Your task to perform on an android device: Go to Android settings Image 0: 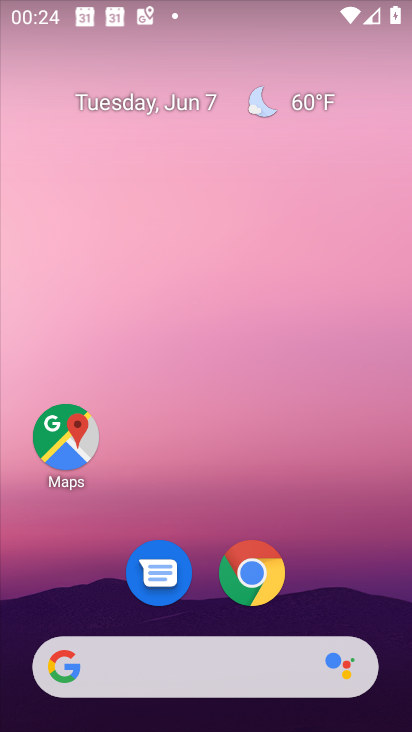
Step 0: drag from (389, 592) to (410, 270)
Your task to perform on an android device: Go to Android settings Image 1: 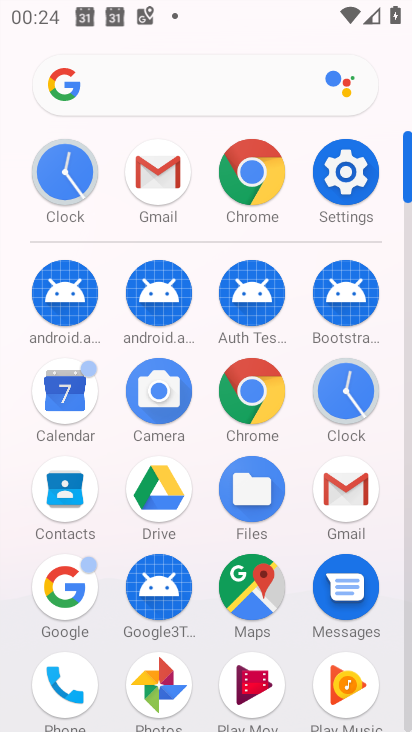
Step 1: click (329, 195)
Your task to perform on an android device: Go to Android settings Image 2: 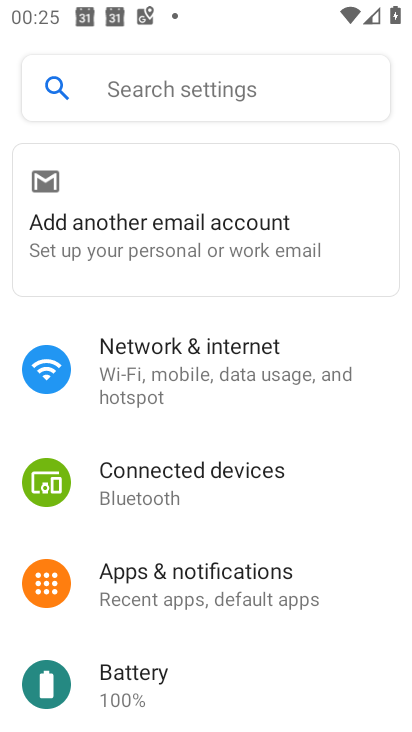
Step 2: drag from (240, 588) to (62, 79)
Your task to perform on an android device: Go to Android settings Image 3: 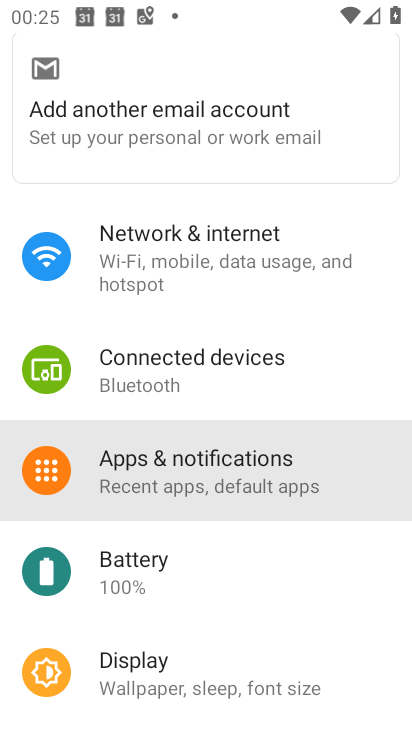
Step 3: drag from (164, 481) to (110, 92)
Your task to perform on an android device: Go to Android settings Image 4: 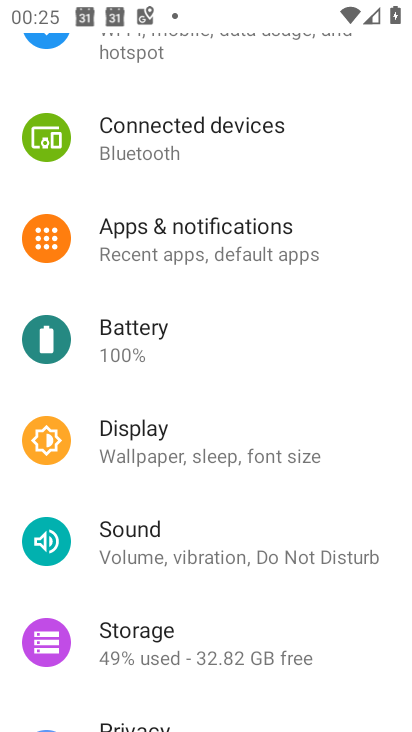
Step 4: drag from (236, 611) to (157, 95)
Your task to perform on an android device: Go to Android settings Image 5: 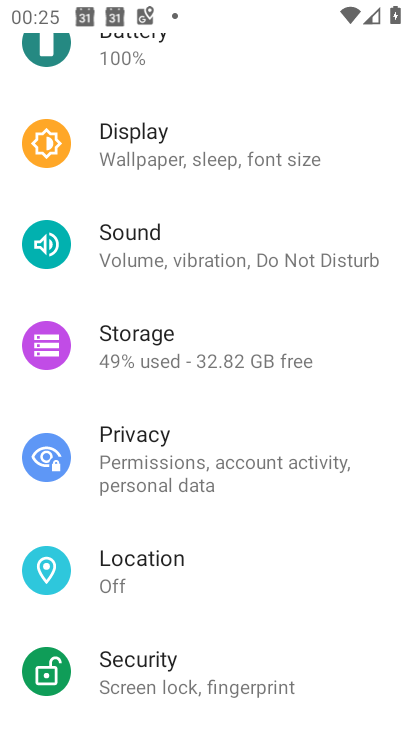
Step 5: drag from (227, 416) to (197, 175)
Your task to perform on an android device: Go to Android settings Image 6: 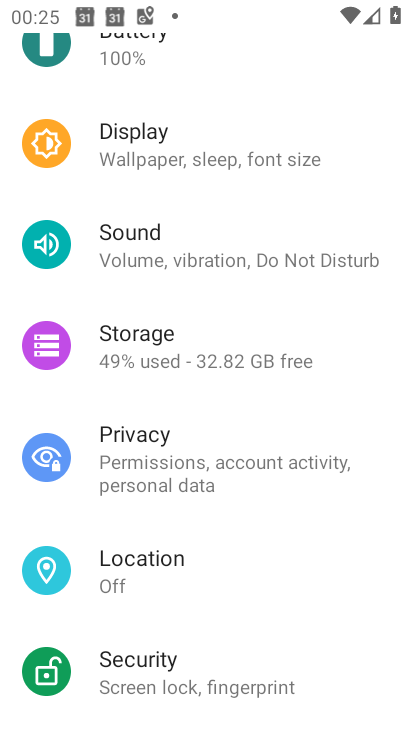
Step 6: drag from (285, 629) to (174, 107)
Your task to perform on an android device: Go to Android settings Image 7: 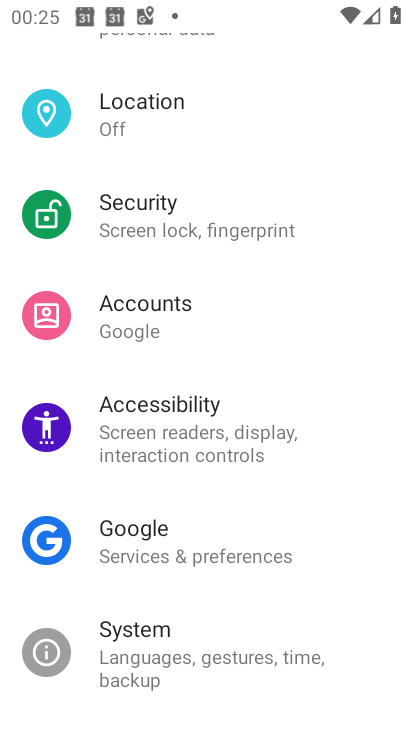
Step 7: drag from (272, 444) to (197, 153)
Your task to perform on an android device: Go to Android settings Image 8: 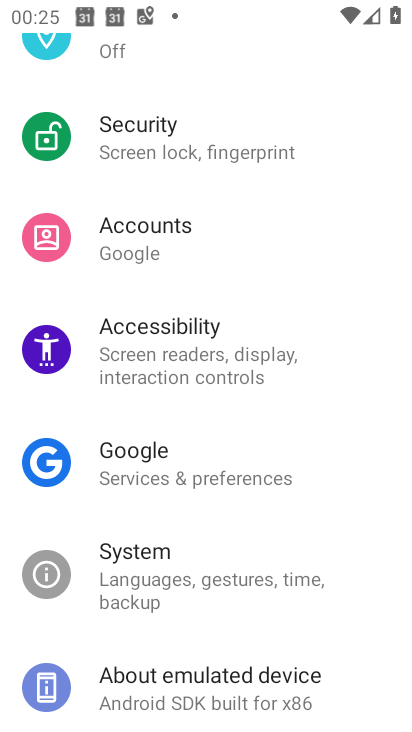
Step 8: drag from (242, 655) to (188, 465)
Your task to perform on an android device: Go to Android settings Image 9: 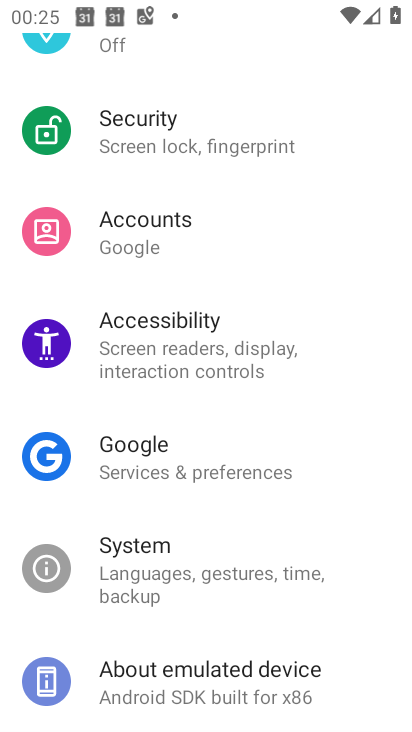
Step 9: click (230, 695)
Your task to perform on an android device: Go to Android settings Image 10: 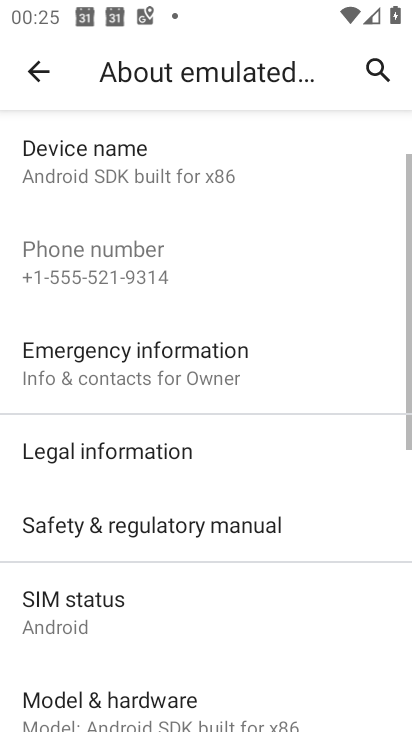
Step 10: click (137, 263)
Your task to perform on an android device: Go to Android settings Image 11: 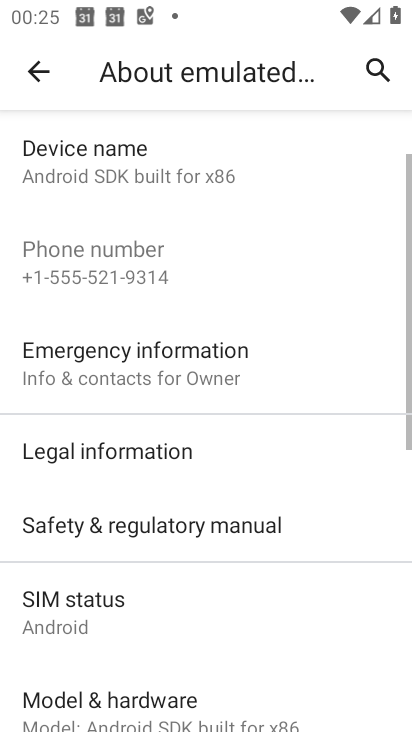
Step 11: drag from (240, 638) to (134, 128)
Your task to perform on an android device: Go to Android settings Image 12: 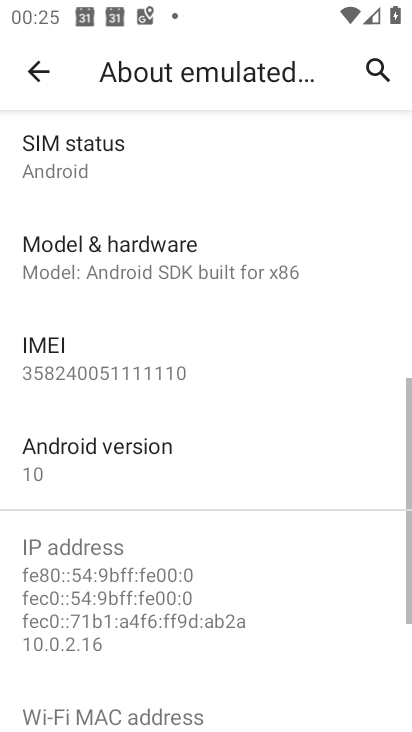
Step 12: click (160, 458)
Your task to perform on an android device: Go to Android settings Image 13: 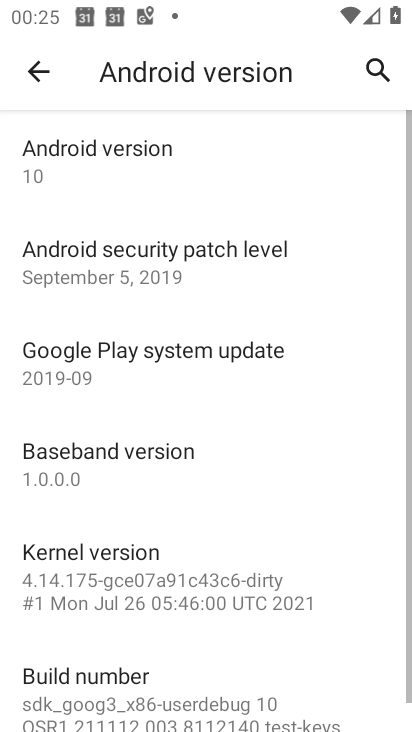
Step 13: task complete